Your task to perform on an android device: toggle improve location accuracy Image 0: 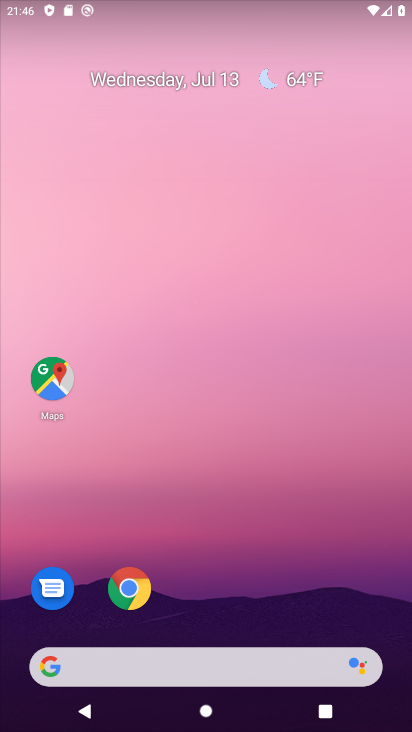
Step 0: drag from (218, 626) to (219, 0)
Your task to perform on an android device: toggle improve location accuracy Image 1: 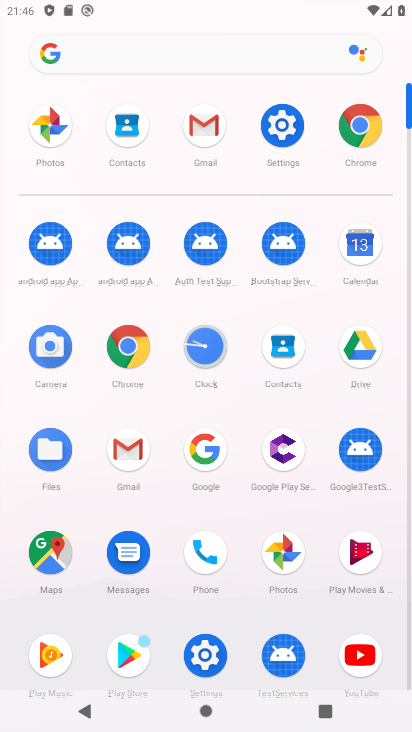
Step 1: click (278, 123)
Your task to perform on an android device: toggle improve location accuracy Image 2: 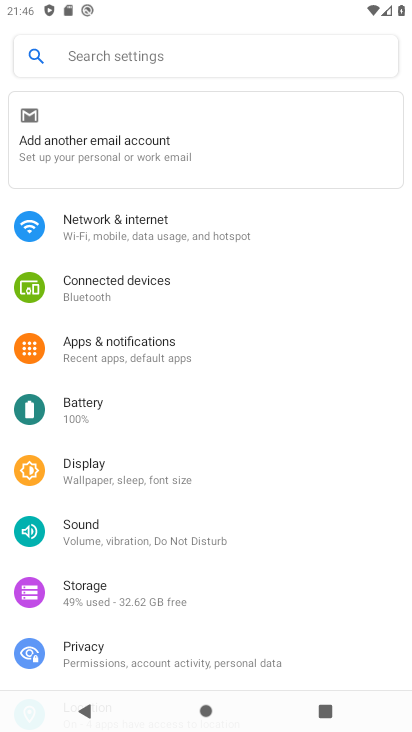
Step 2: drag from (135, 618) to (212, 72)
Your task to perform on an android device: toggle improve location accuracy Image 3: 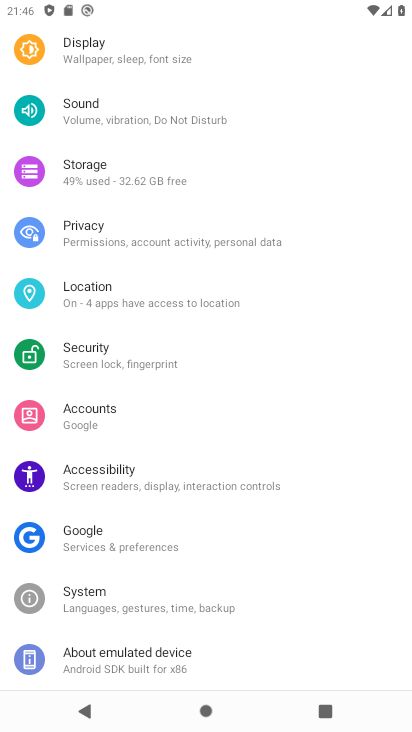
Step 3: click (124, 294)
Your task to perform on an android device: toggle improve location accuracy Image 4: 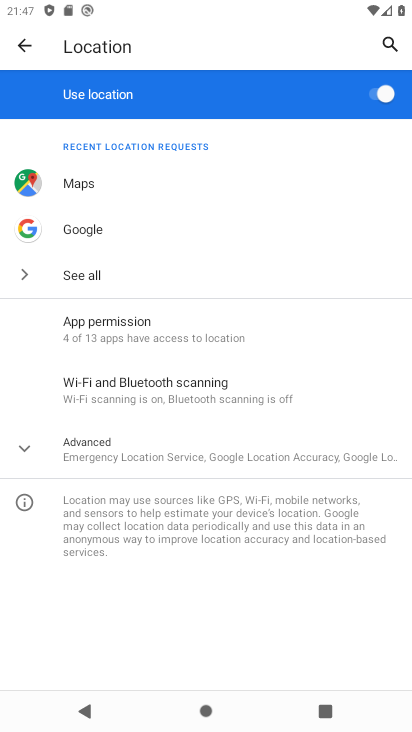
Step 4: click (268, 459)
Your task to perform on an android device: toggle improve location accuracy Image 5: 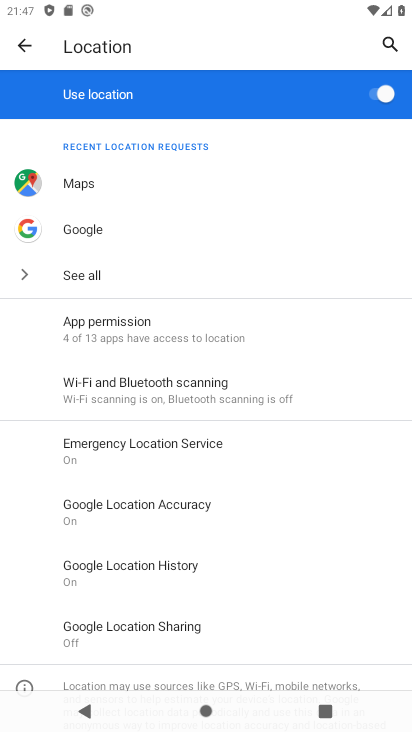
Step 5: click (170, 514)
Your task to perform on an android device: toggle improve location accuracy Image 6: 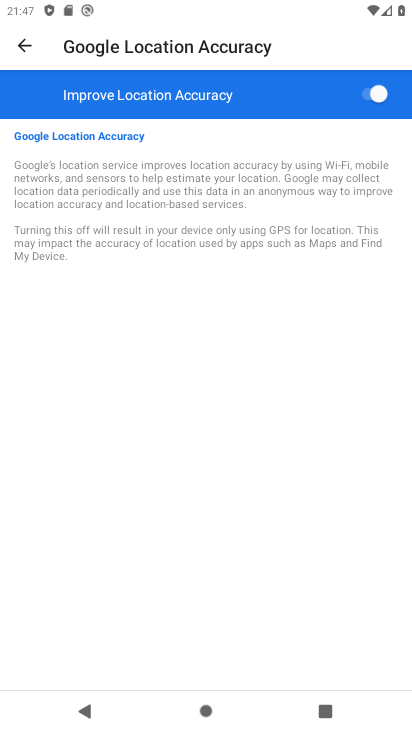
Step 6: click (376, 98)
Your task to perform on an android device: toggle improve location accuracy Image 7: 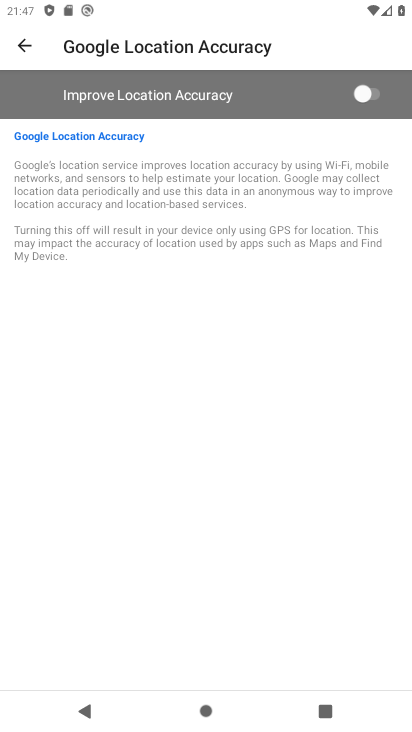
Step 7: task complete